Your task to perform on an android device: Open calendar and show me the first week of next month Image 0: 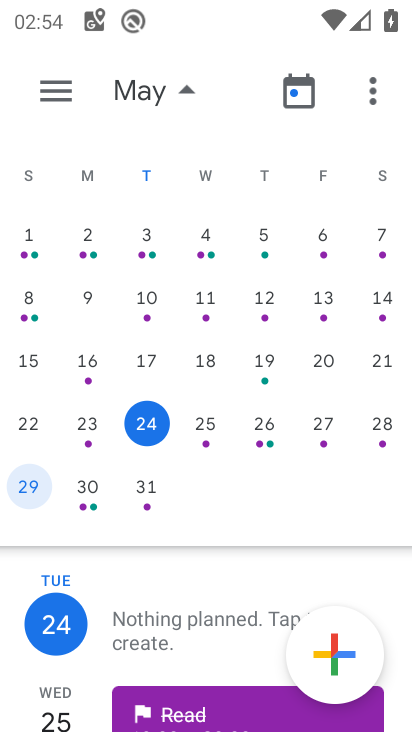
Step 0: drag from (405, 401) to (24, 380)
Your task to perform on an android device: Open calendar and show me the first week of next month Image 1: 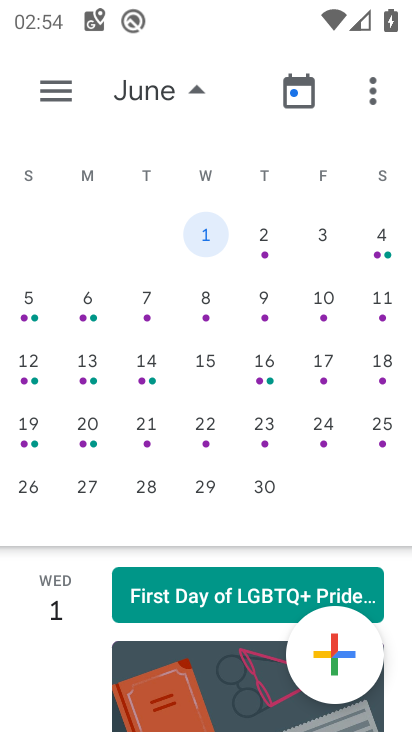
Step 1: click (279, 239)
Your task to perform on an android device: Open calendar and show me the first week of next month Image 2: 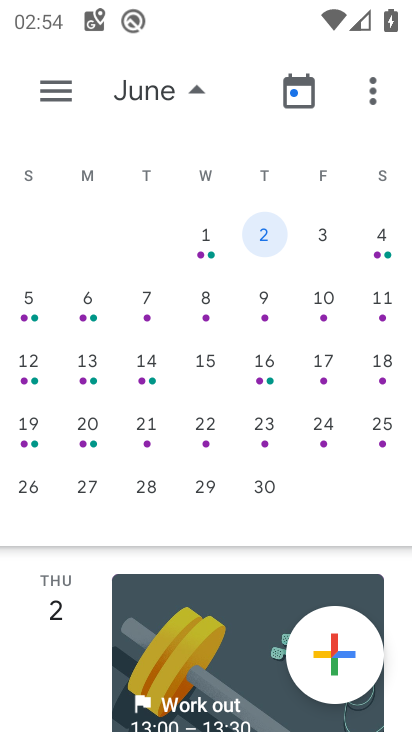
Step 2: click (314, 241)
Your task to perform on an android device: Open calendar and show me the first week of next month Image 3: 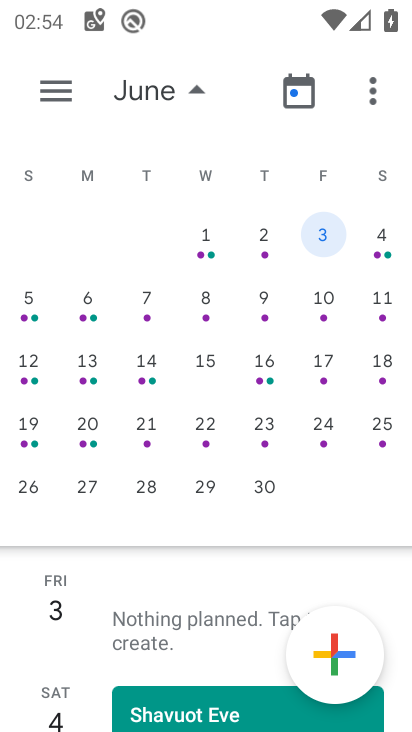
Step 3: task complete